Your task to perform on an android device: move an email to a new category in the gmail app Image 0: 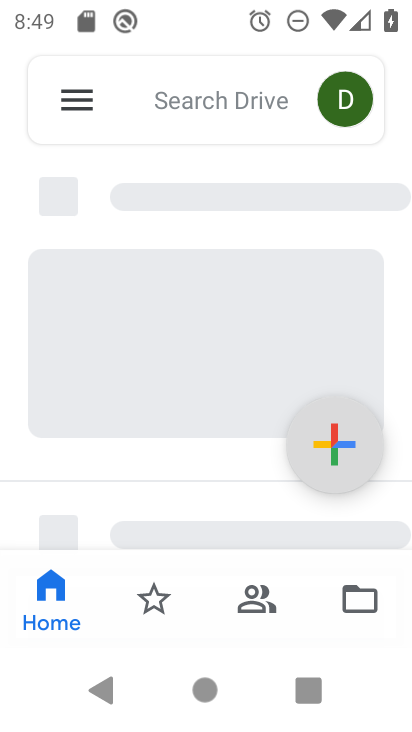
Step 0: press home button
Your task to perform on an android device: move an email to a new category in the gmail app Image 1: 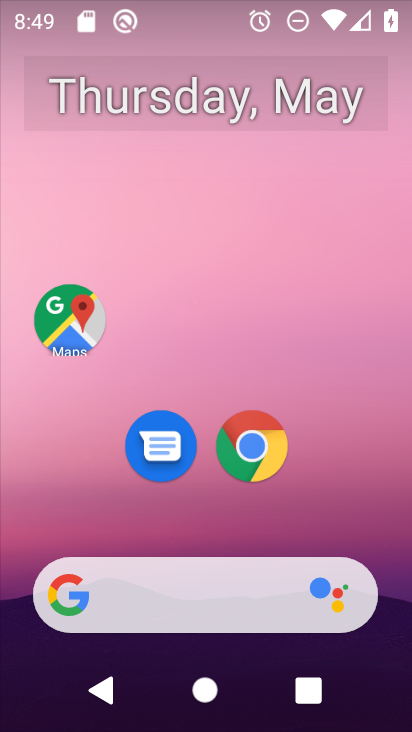
Step 1: drag from (361, 511) to (330, 129)
Your task to perform on an android device: move an email to a new category in the gmail app Image 2: 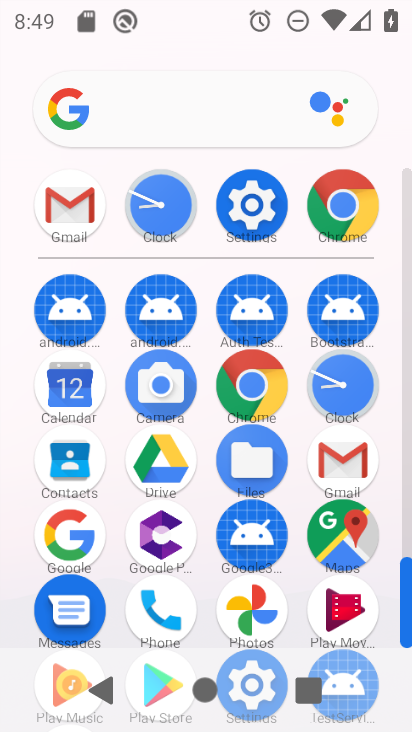
Step 2: click (334, 438)
Your task to perform on an android device: move an email to a new category in the gmail app Image 3: 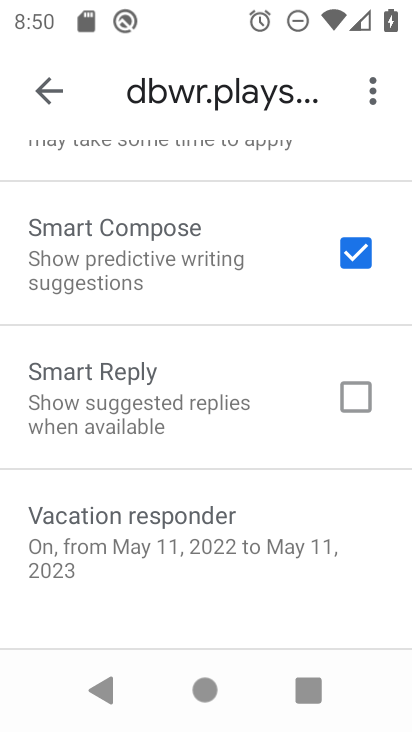
Step 3: click (45, 89)
Your task to perform on an android device: move an email to a new category in the gmail app Image 4: 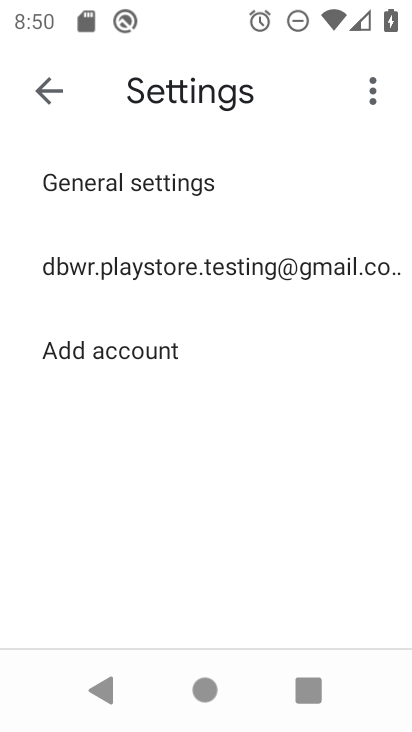
Step 4: click (45, 89)
Your task to perform on an android device: move an email to a new category in the gmail app Image 5: 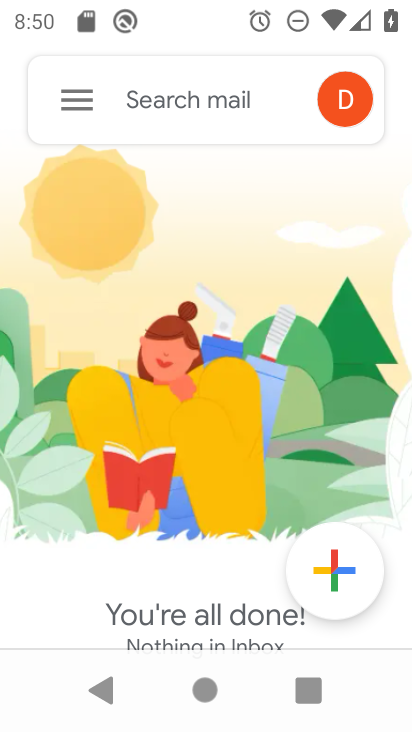
Step 5: click (67, 103)
Your task to perform on an android device: move an email to a new category in the gmail app Image 6: 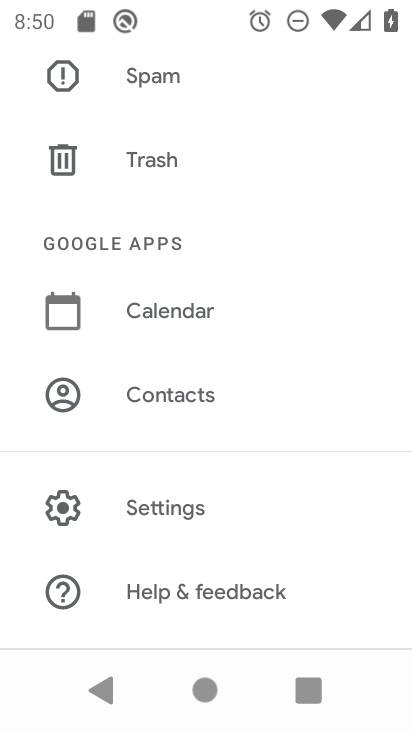
Step 6: drag from (251, 166) to (198, 480)
Your task to perform on an android device: move an email to a new category in the gmail app Image 7: 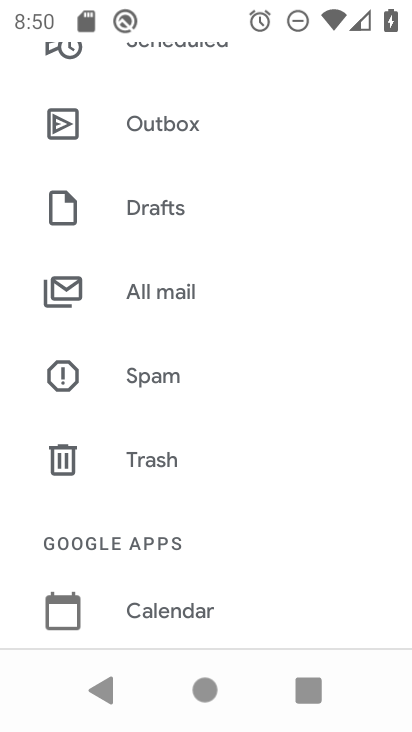
Step 7: click (198, 318)
Your task to perform on an android device: move an email to a new category in the gmail app Image 8: 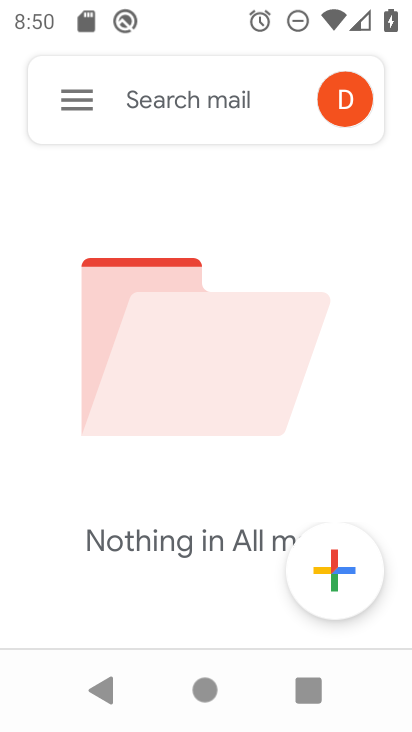
Step 8: task complete